Your task to perform on an android device: open app "Gboard" (install if not already installed) Image 0: 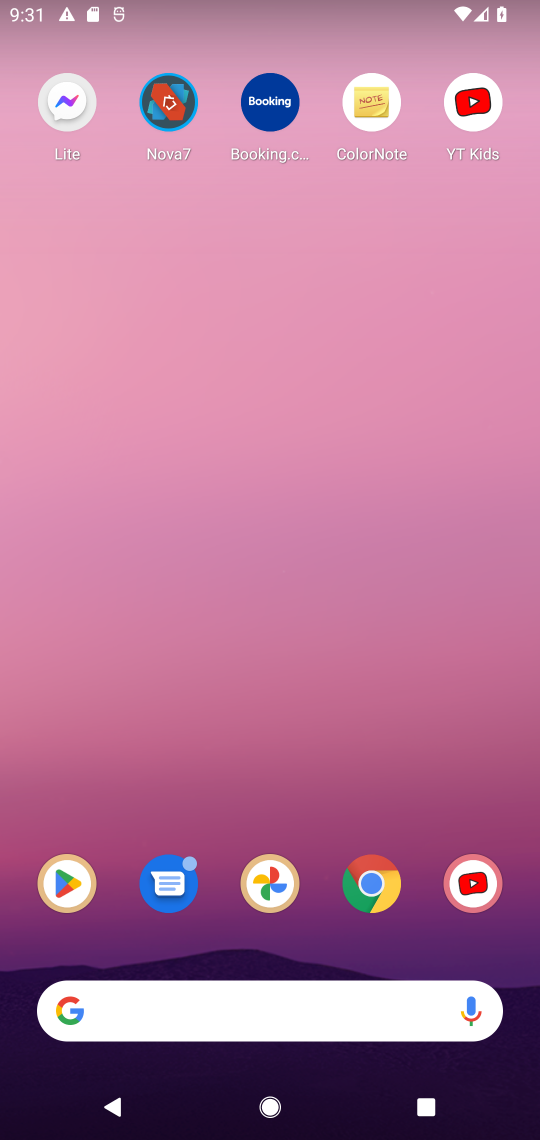
Step 0: click (66, 879)
Your task to perform on an android device: open app "Gboard" (install if not already installed) Image 1: 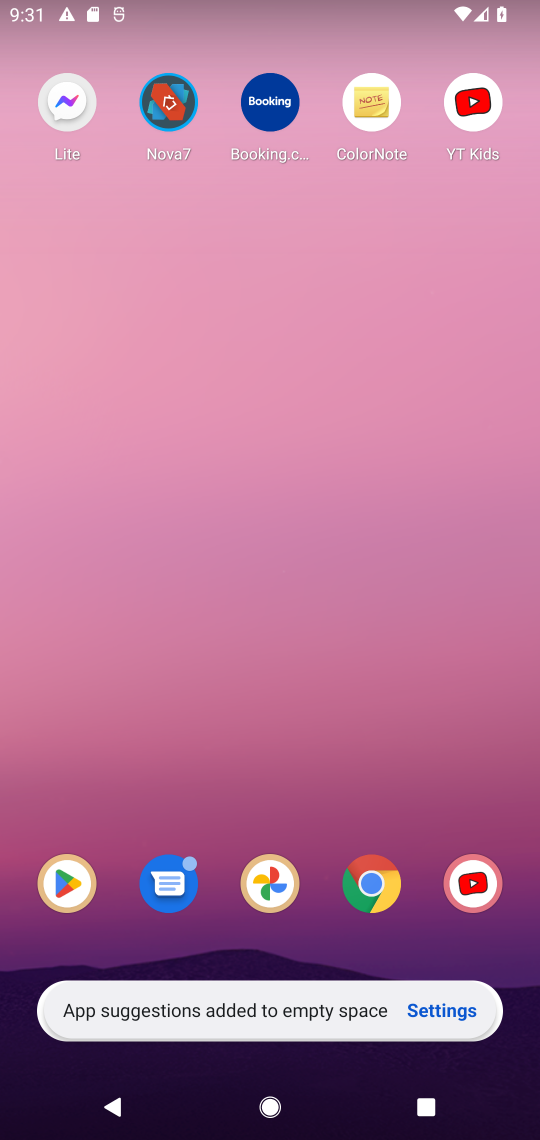
Step 1: click (66, 879)
Your task to perform on an android device: open app "Gboard" (install if not already installed) Image 2: 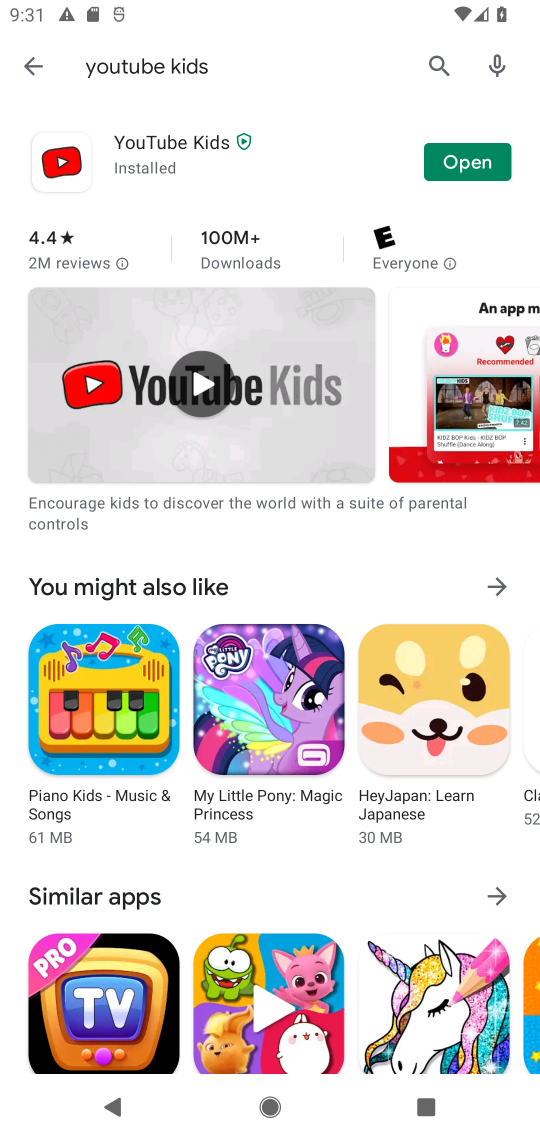
Step 2: click (208, 75)
Your task to perform on an android device: open app "Gboard" (install if not already installed) Image 3: 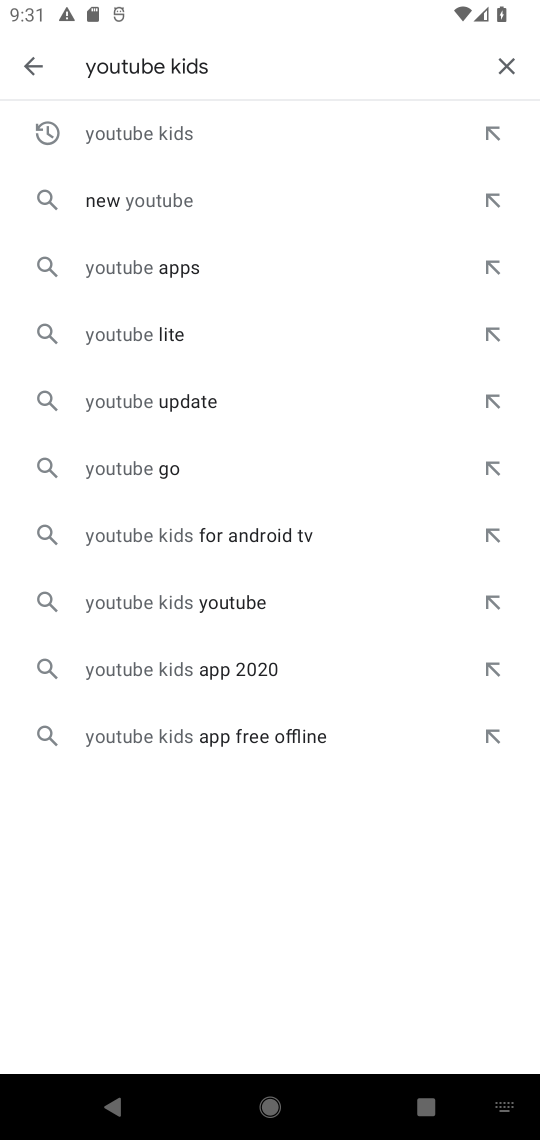
Step 3: click (511, 54)
Your task to perform on an android device: open app "Gboard" (install if not already installed) Image 4: 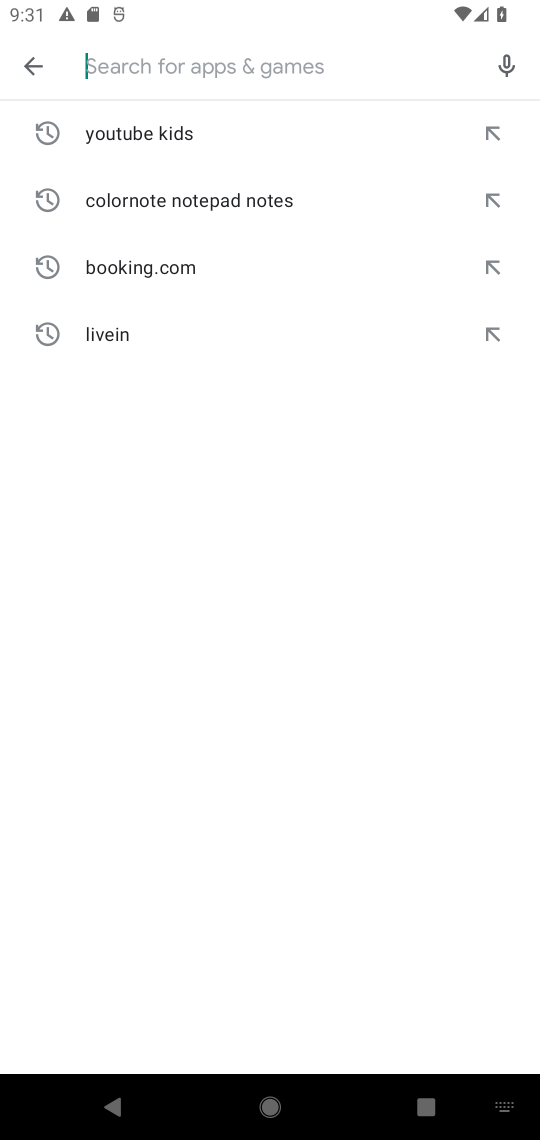
Step 4: type "Gboard"
Your task to perform on an android device: open app "Gboard" (install if not already installed) Image 5: 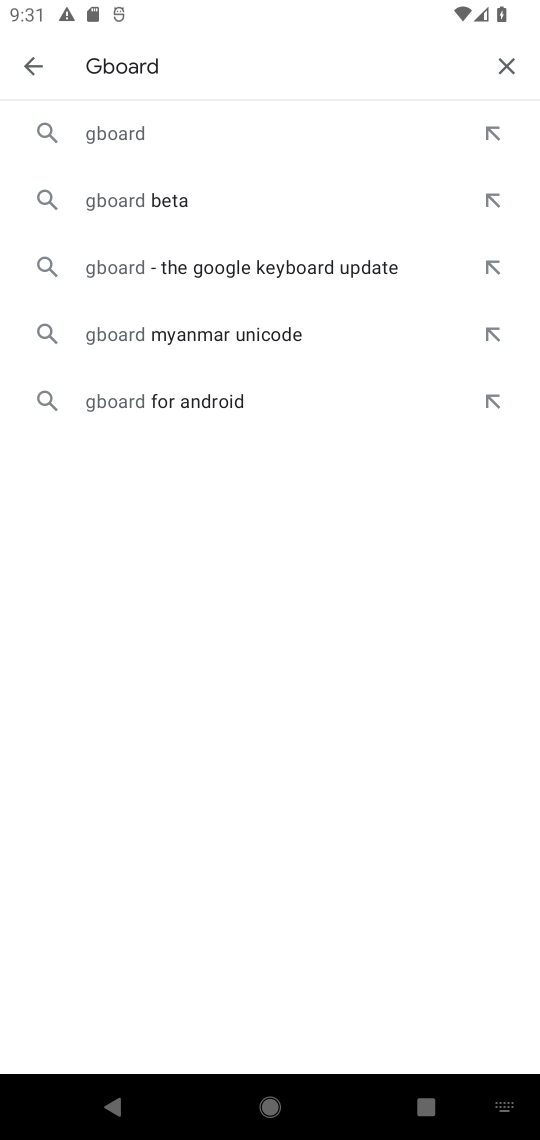
Step 5: click (114, 123)
Your task to perform on an android device: open app "Gboard" (install if not already installed) Image 6: 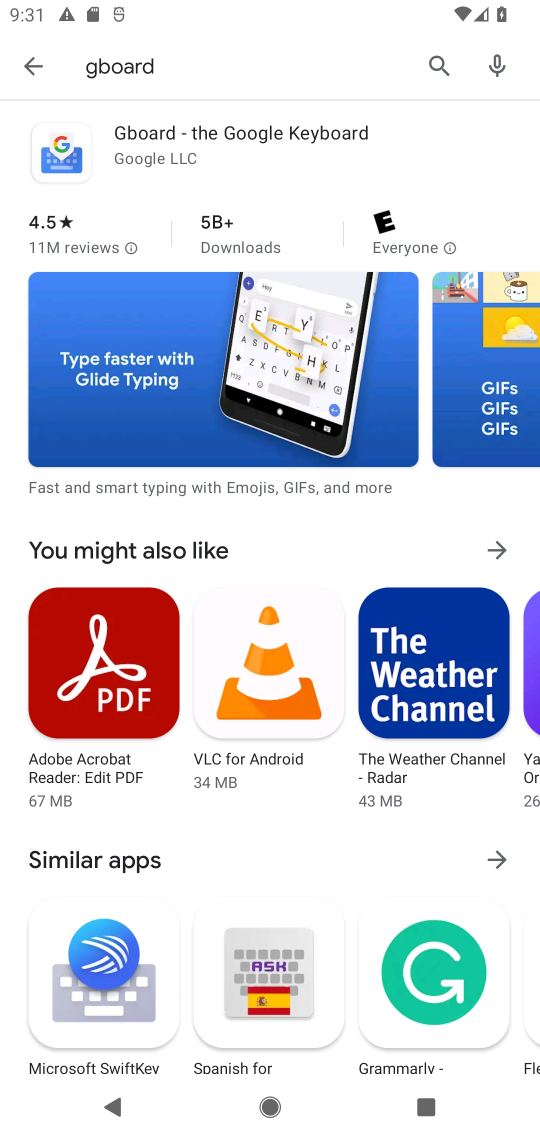
Step 6: click (180, 140)
Your task to perform on an android device: open app "Gboard" (install if not already installed) Image 7: 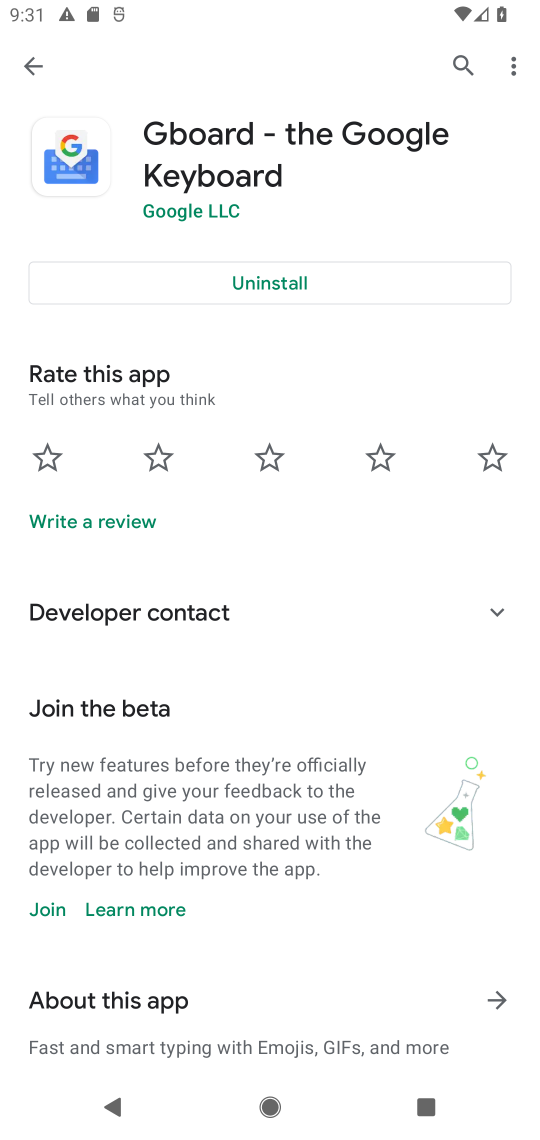
Step 7: click (254, 135)
Your task to perform on an android device: open app "Gboard" (install if not already installed) Image 8: 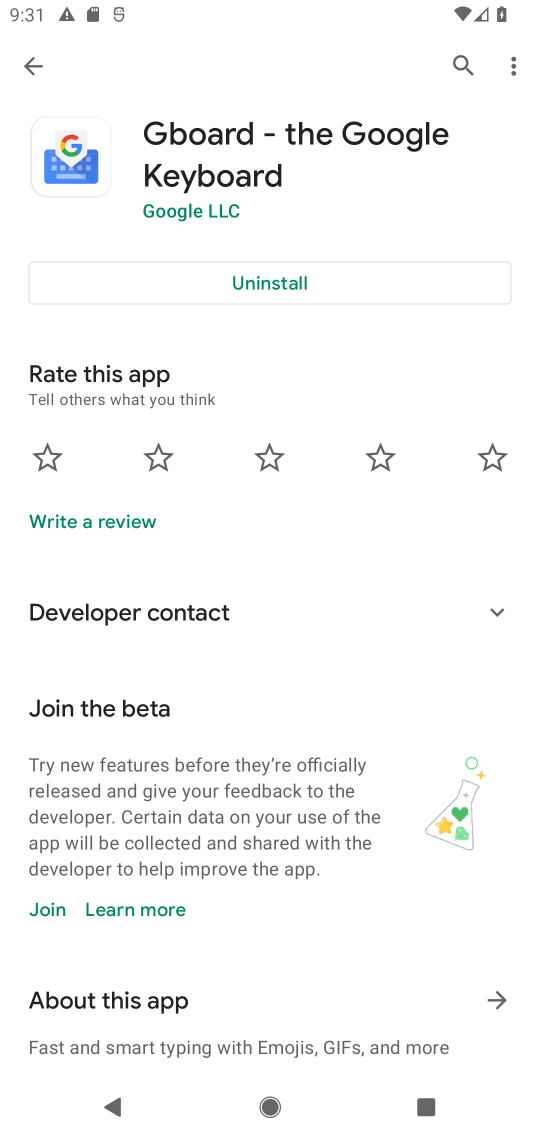
Step 8: task complete